Your task to perform on an android device: Open the stopwatch Image 0: 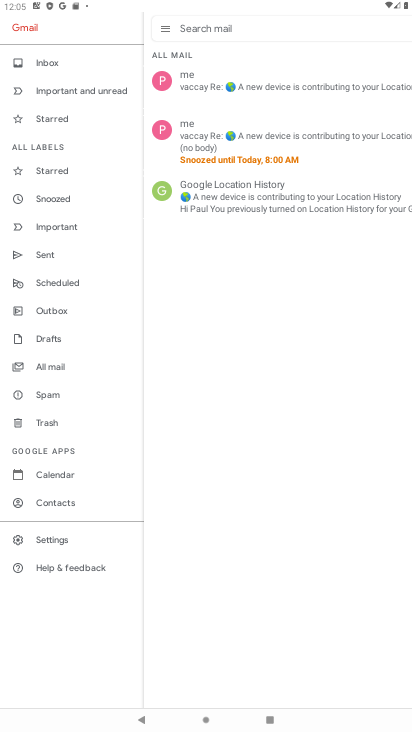
Step 0: press home button
Your task to perform on an android device: Open the stopwatch Image 1: 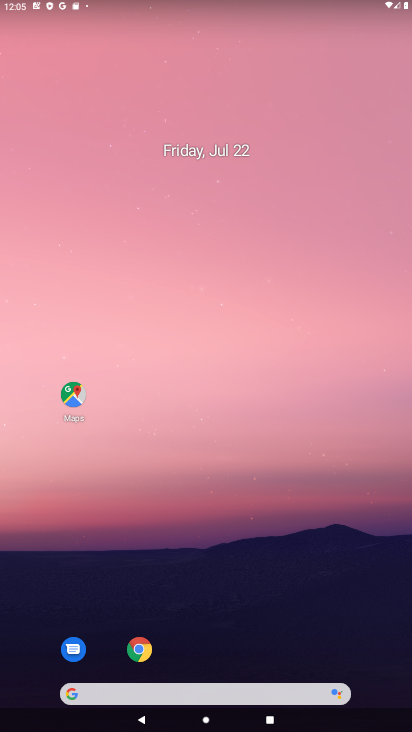
Step 1: drag from (221, 727) to (221, 337)
Your task to perform on an android device: Open the stopwatch Image 2: 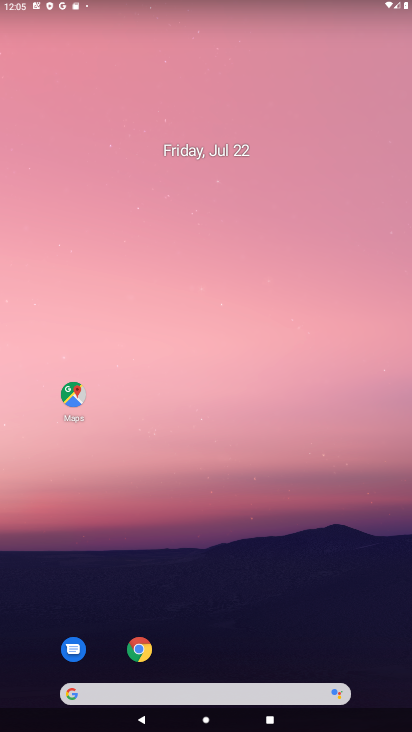
Step 2: drag from (223, 724) to (215, 253)
Your task to perform on an android device: Open the stopwatch Image 3: 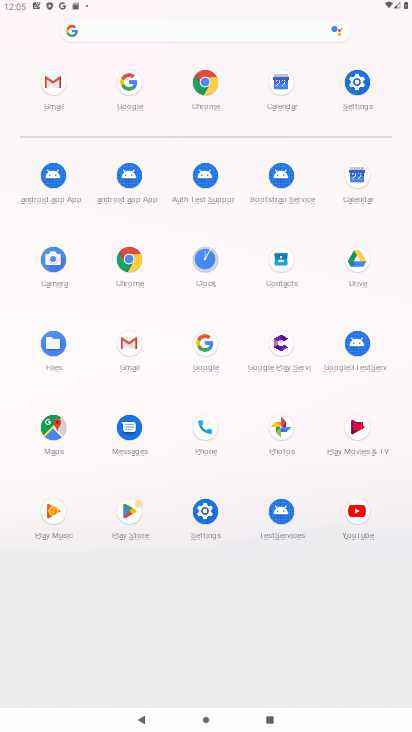
Step 3: click (211, 257)
Your task to perform on an android device: Open the stopwatch Image 4: 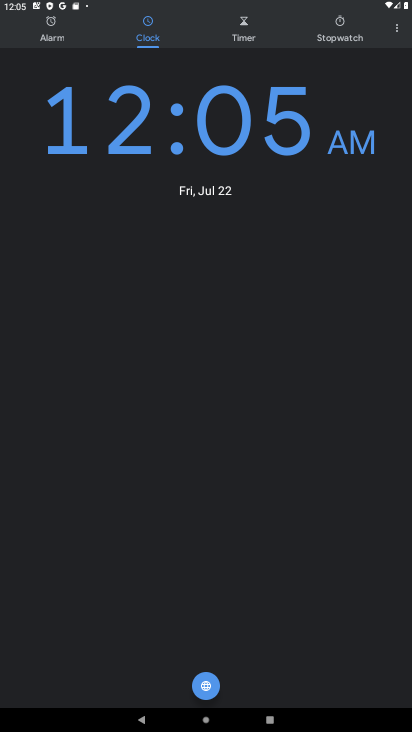
Step 4: click (348, 29)
Your task to perform on an android device: Open the stopwatch Image 5: 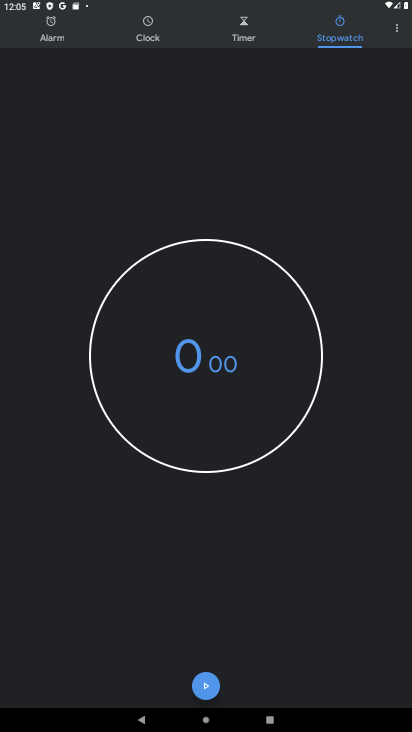
Step 5: task complete